Your task to perform on an android device: Search for pizza restaurants on Maps Image 0: 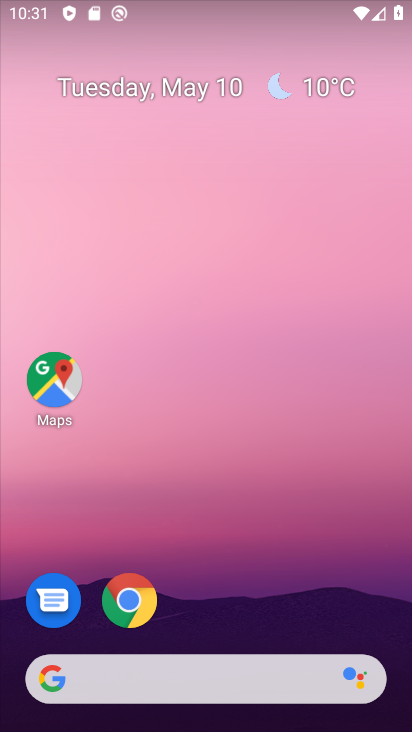
Step 0: drag from (276, 570) to (244, 100)
Your task to perform on an android device: Search for pizza restaurants on Maps Image 1: 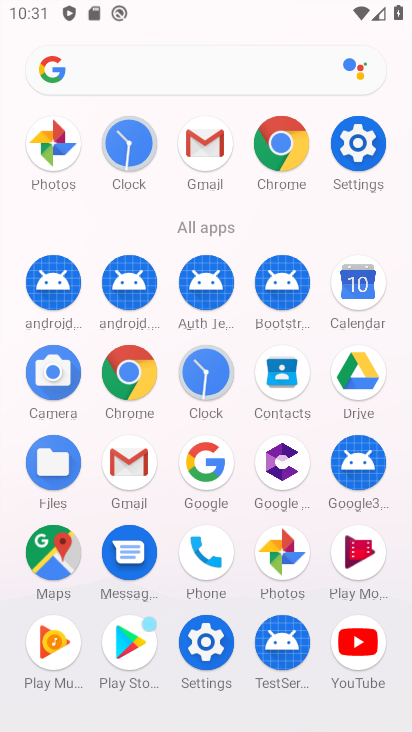
Step 1: click (53, 538)
Your task to perform on an android device: Search for pizza restaurants on Maps Image 2: 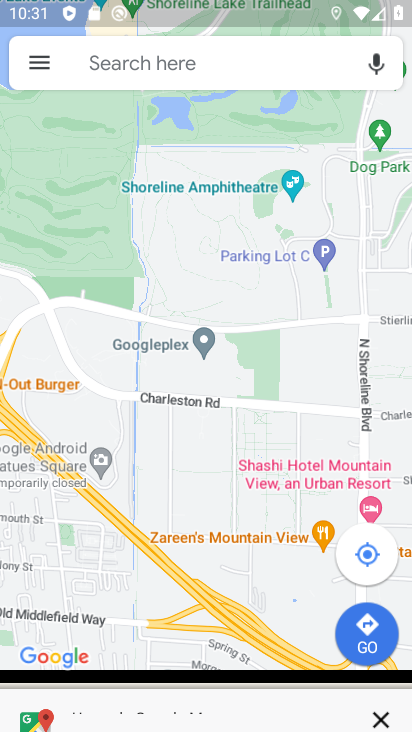
Step 2: click (144, 72)
Your task to perform on an android device: Search for pizza restaurants on Maps Image 3: 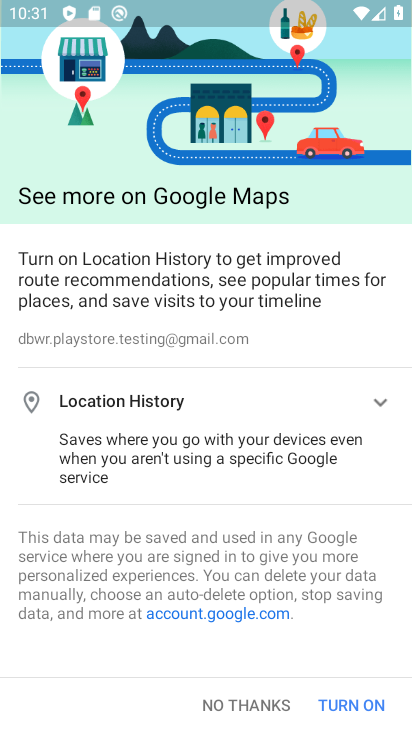
Step 3: click (244, 692)
Your task to perform on an android device: Search for pizza restaurants on Maps Image 4: 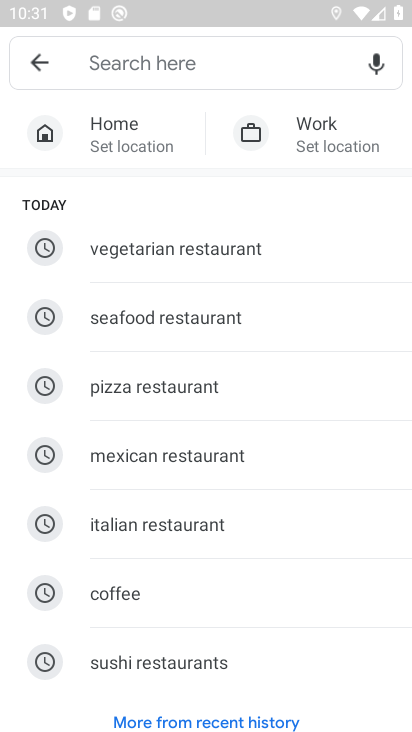
Step 4: click (152, 381)
Your task to perform on an android device: Search for pizza restaurants on Maps Image 5: 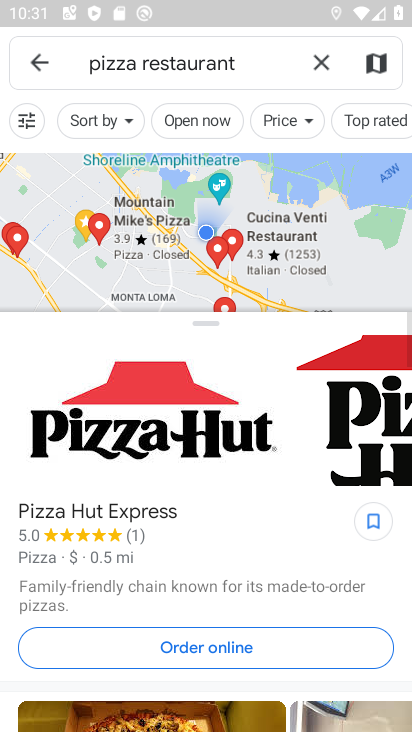
Step 5: task complete